Your task to perform on an android device: manage bookmarks in the chrome app Image 0: 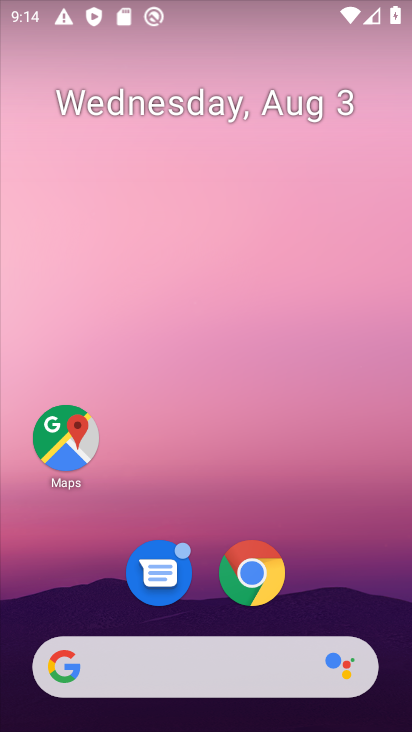
Step 0: drag from (170, 651) to (187, 121)
Your task to perform on an android device: manage bookmarks in the chrome app Image 1: 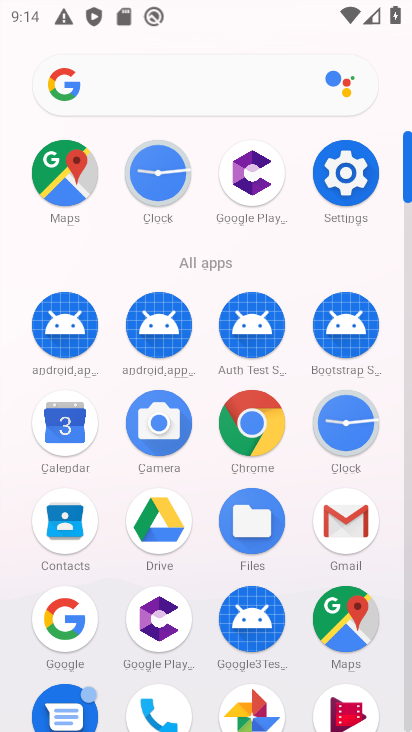
Step 1: click (245, 400)
Your task to perform on an android device: manage bookmarks in the chrome app Image 2: 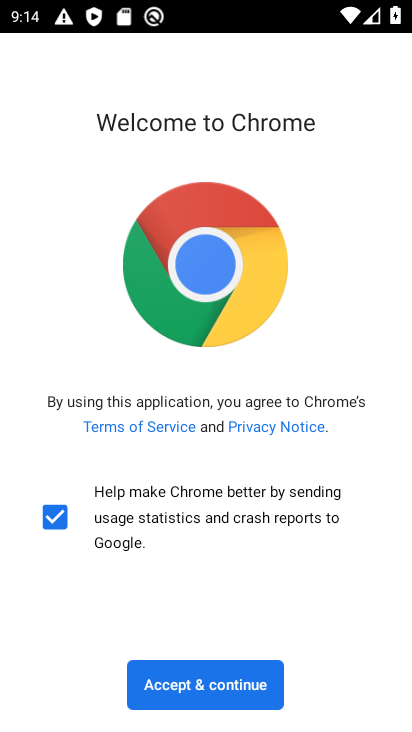
Step 2: click (217, 674)
Your task to perform on an android device: manage bookmarks in the chrome app Image 3: 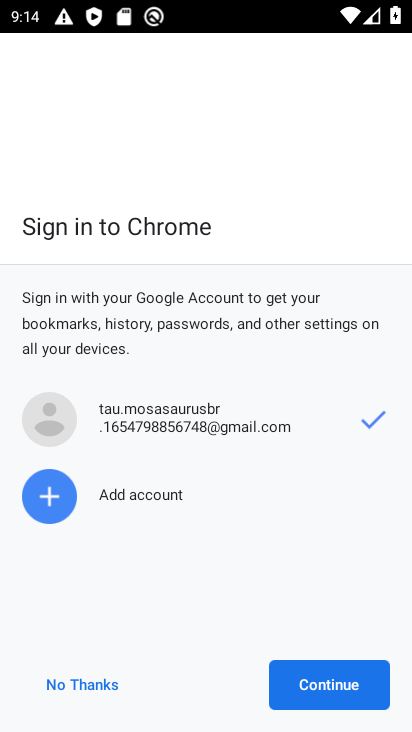
Step 3: click (337, 681)
Your task to perform on an android device: manage bookmarks in the chrome app Image 4: 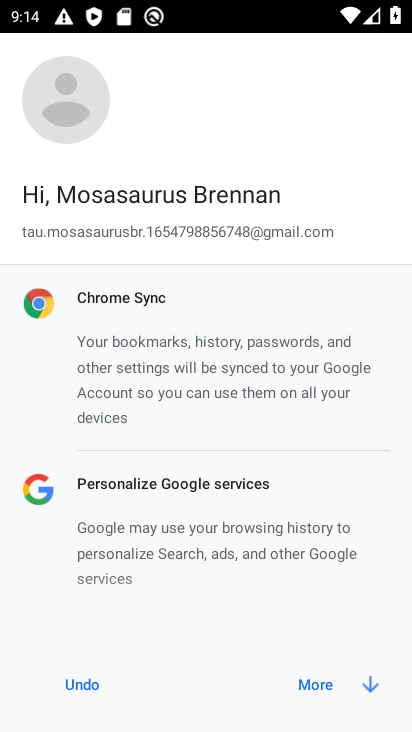
Step 4: click (337, 681)
Your task to perform on an android device: manage bookmarks in the chrome app Image 5: 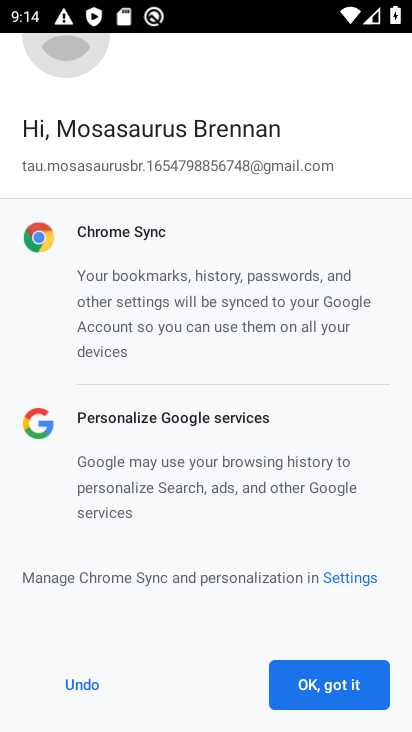
Step 5: click (357, 701)
Your task to perform on an android device: manage bookmarks in the chrome app Image 6: 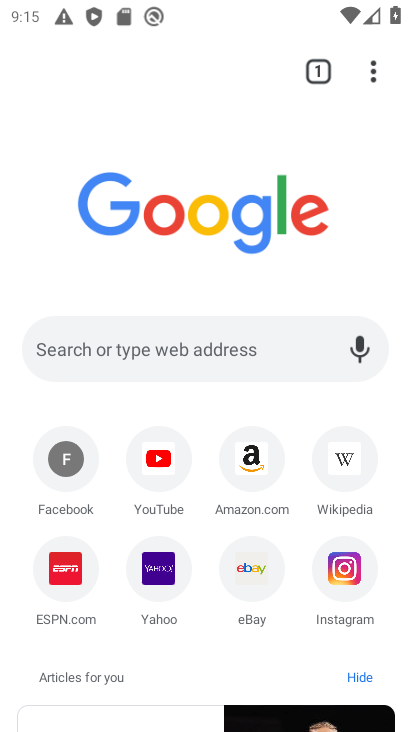
Step 6: drag from (379, 74) to (131, 271)
Your task to perform on an android device: manage bookmarks in the chrome app Image 7: 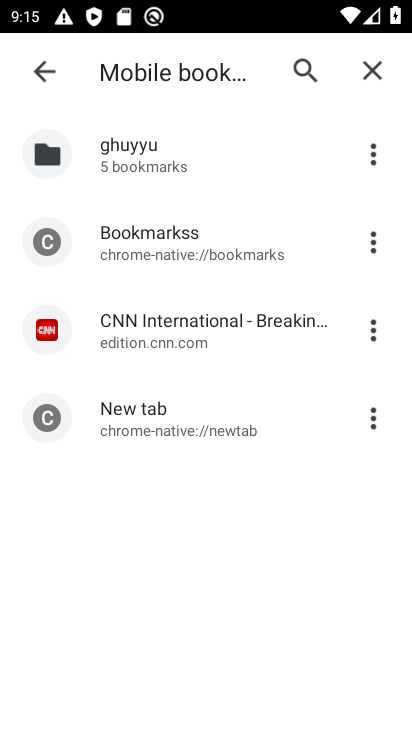
Step 7: click (377, 329)
Your task to perform on an android device: manage bookmarks in the chrome app Image 8: 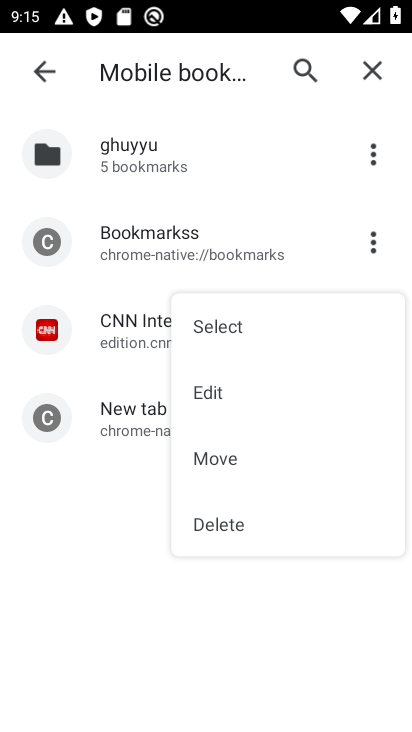
Step 8: click (242, 532)
Your task to perform on an android device: manage bookmarks in the chrome app Image 9: 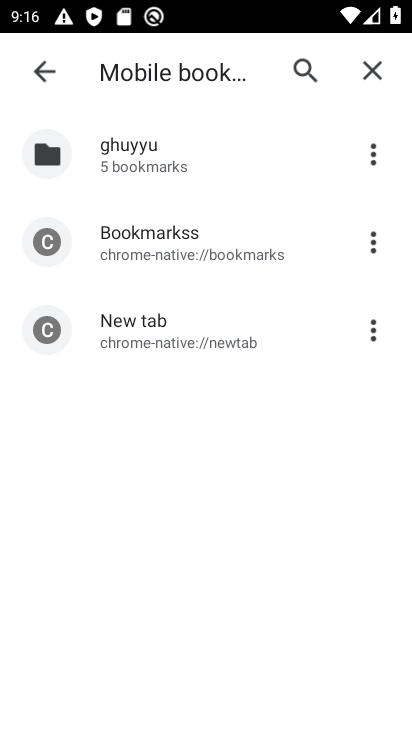
Step 9: task complete